Your task to perform on an android device: toggle location history Image 0: 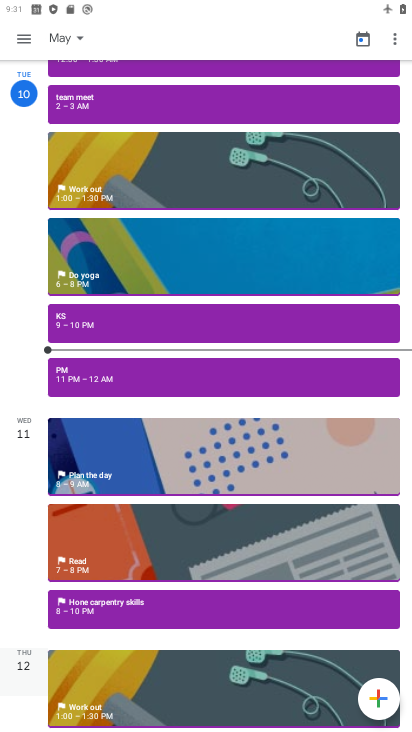
Step 0: press home button
Your task to perform on an android device: toggle location history Image 1: 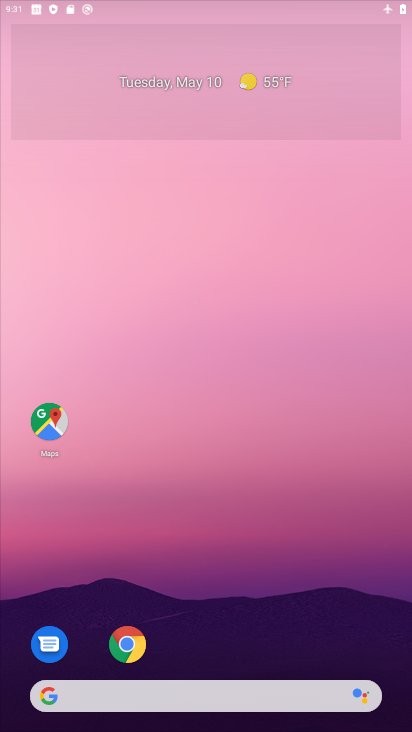
Step 1: drag from (324, 494) to (372, 111)
Your task to perform on an android device: toggle location history Image 2: 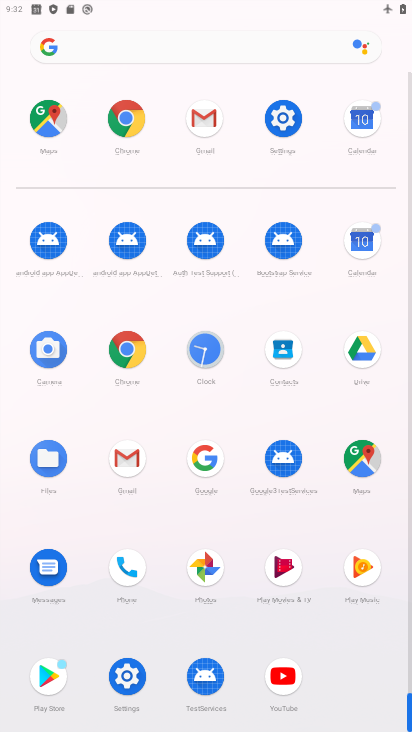
Step 2: click (286, 134)
Your task to perform on an android device: toggle location history Image 3: 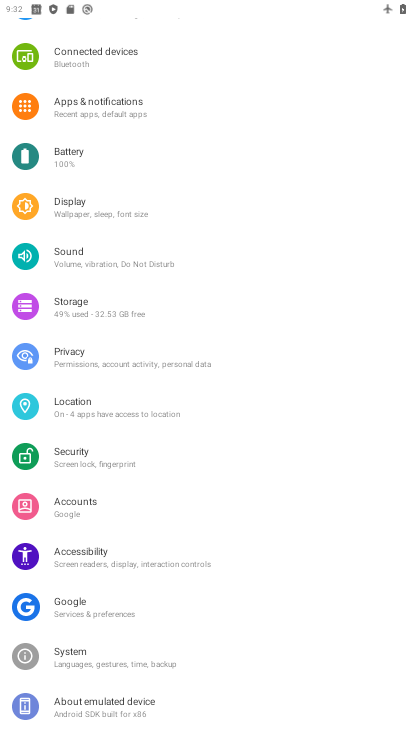
Step 3: click (143, 418)
Your task to perform on an android device: toggle location history Image 4: 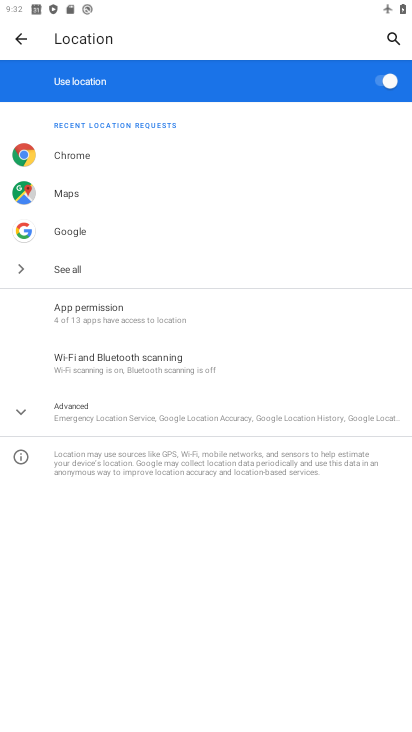
Step 4: click (130, 405)
Your task to perform on an android device: toggle location history Image 5: 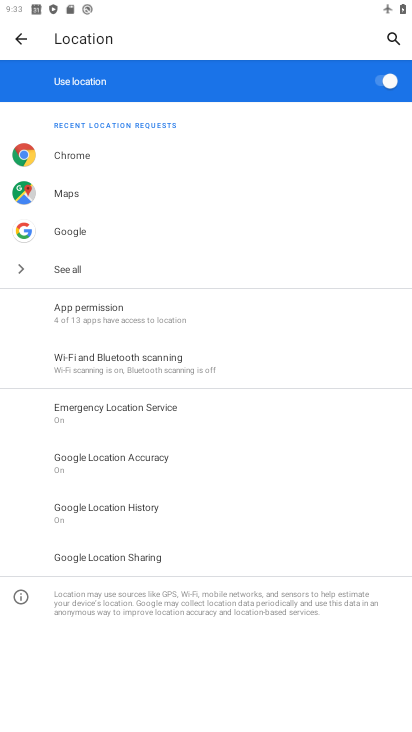
Step 5: click (155, 502)
Your task to perform on an android device: toggle location history Image 6: 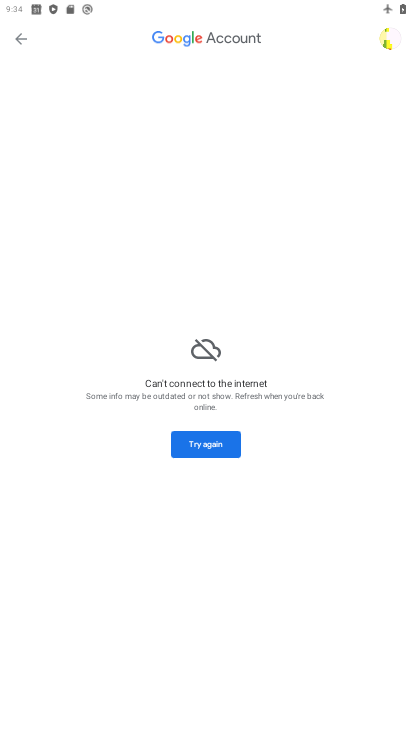
Step 6: task complete